Your task to perform on an android device: Go to Amazon Image 0: 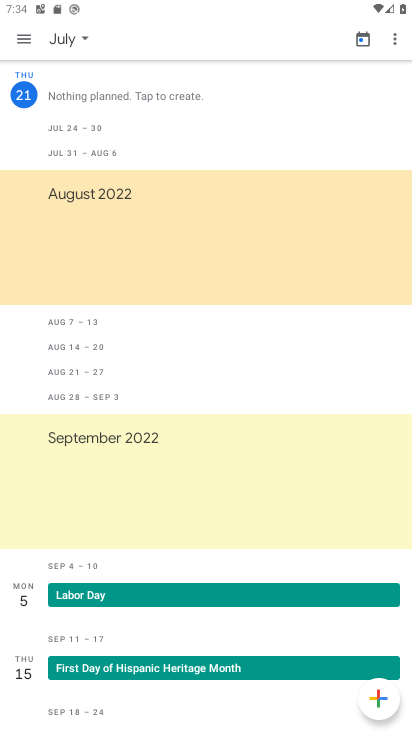
Step 0: press home button
Your task to perform on an android device: Go to Amazon Image 1: 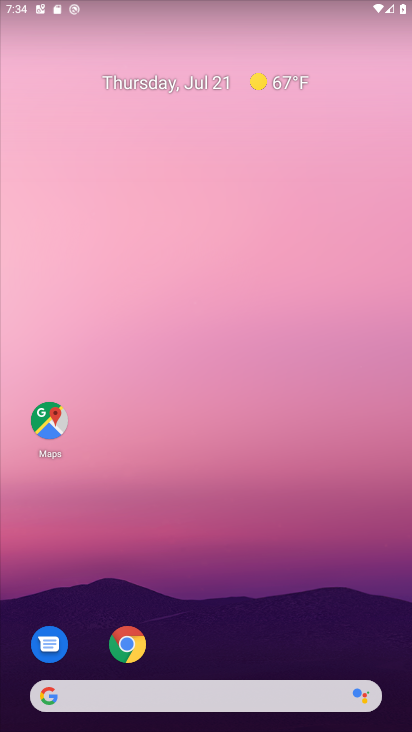
Step 1: click (120, 651)
Your task to perform on an android device: Go to Amazon Image 2: 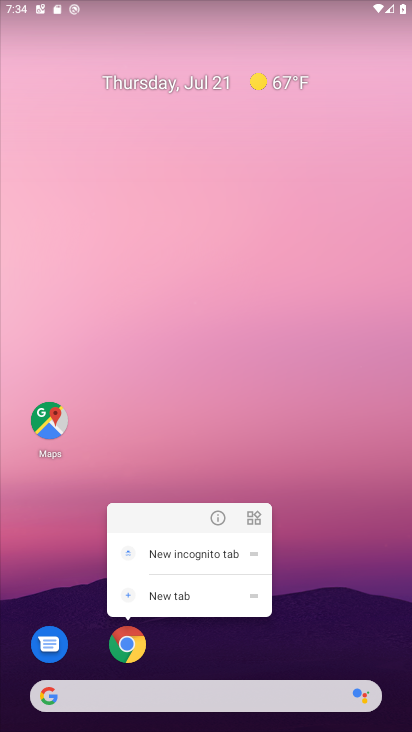
Step 2: click (135, 648)
Your task to perform on an android device: Go to Amazon Image 3: 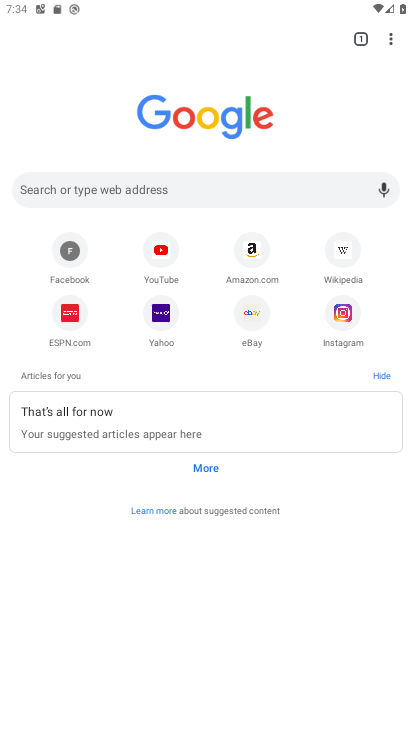
Step 3: click (257, 263)
Your task to perform on an android device: Go to Amazon Image 4: 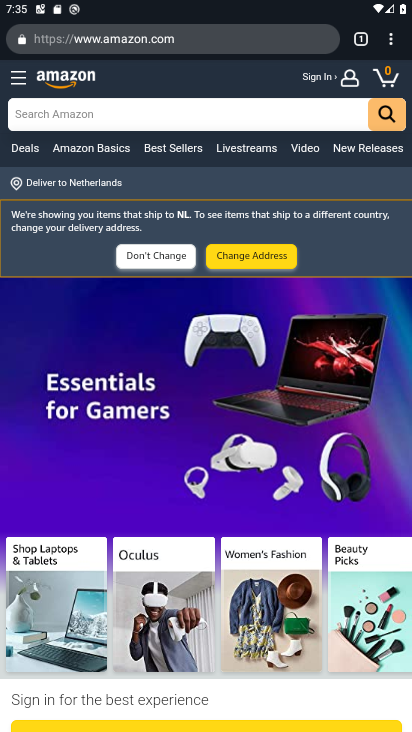
Step 4: task complete